Your task to perform on an android device: Clear all items from cart on bestbuy.com. Search for razer thresher on bestbuy.com, select the first entry, and add it to the cart. Image 0: 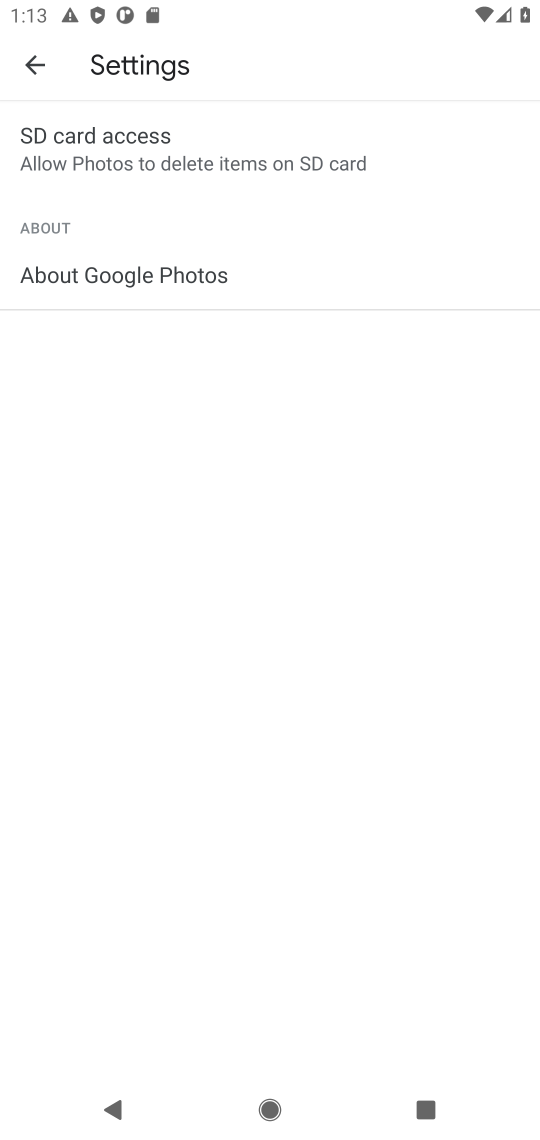
Step 0: press home button
Your task to perform on an android device: Clear all items from cart on bestbuy.com. Search for razer thresher on bestbuy.com, select the first entry, and add it to the cart. Image 1: 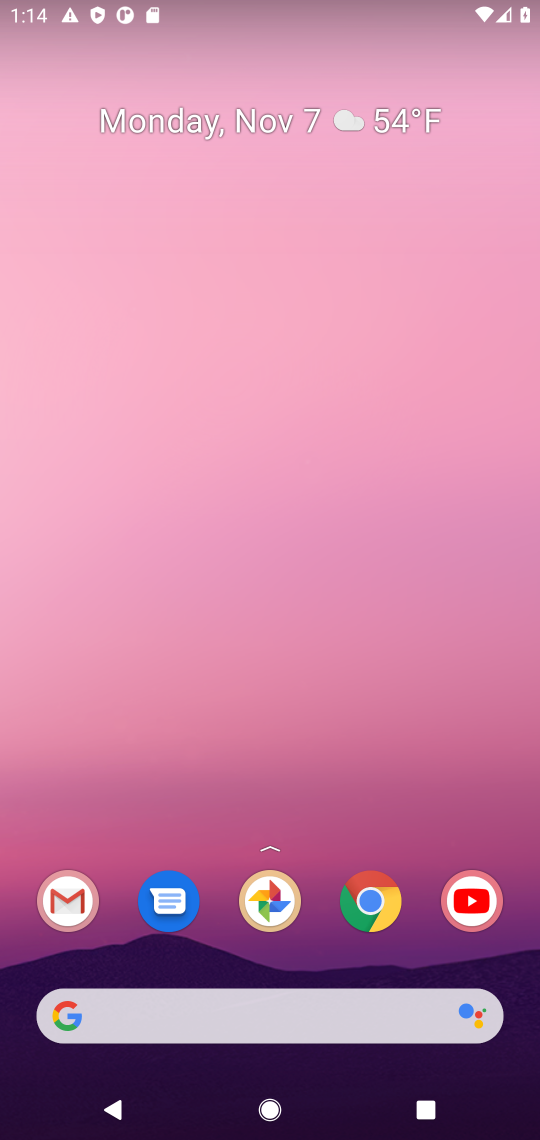
Step 1: click (371, 908)
Your task to perform on an android device: Clear all items from cart on bestbuy.com. Search for razer thresher on bestbuy.com, select the first entry, and add it to the cart. Image 2: 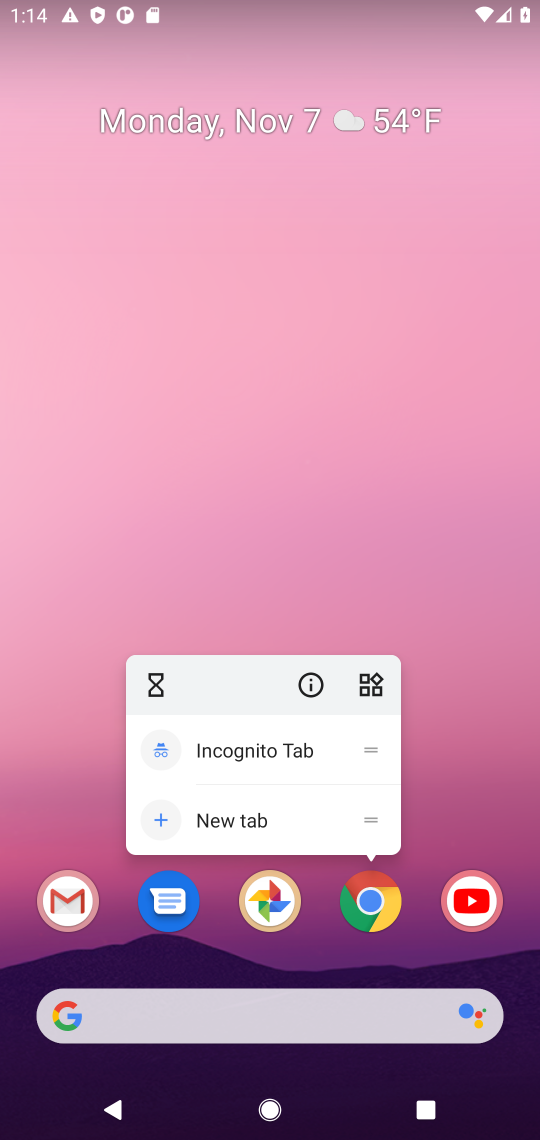
Step 2: click (371, 908)
Your task to perform on an android device: Clear all items from cart on bestbuy.com. Search for razer thresher on bestbuy.com, select the first entry, and add it to the cart. Image 3: 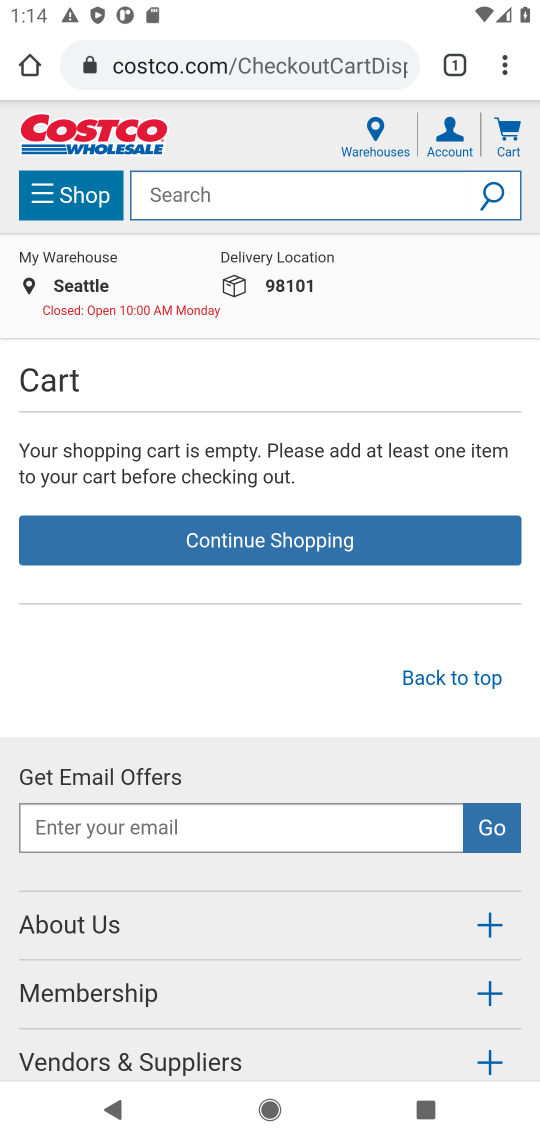
Step 3: click (225, 71)
Your task to perform on an android device: Clear all items from cart on bestbuy.com. Search for razer thresher on bestbuy.com, select the first entry, and add it to the cart. Image 4: 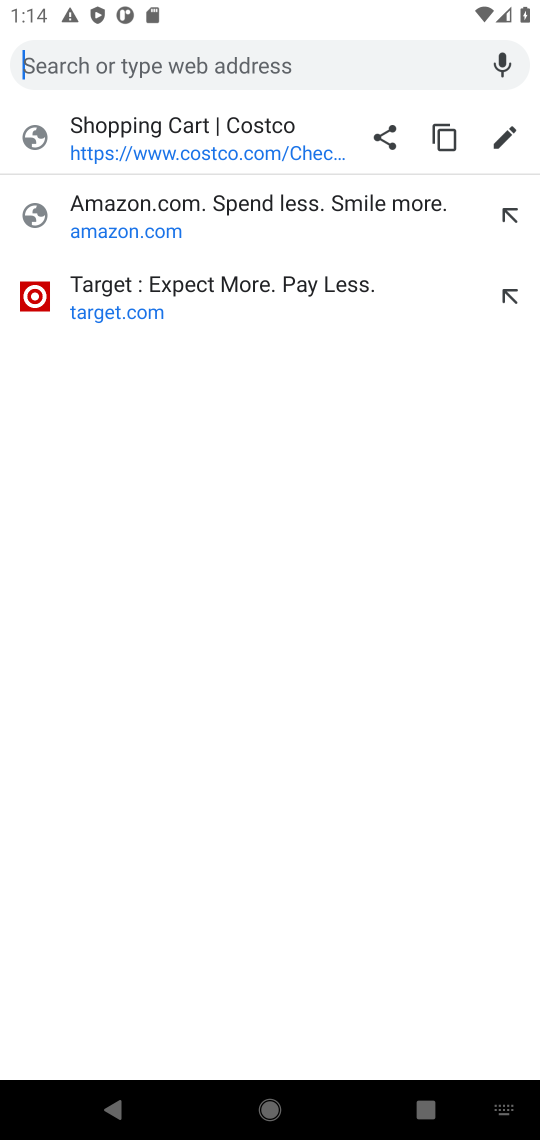
Step 4: type "bestbuy.com"
Your task to perform on an android device: Clear all items from cart on bestbuy.com. Search for razer thresher on bestbuy.com, select the first entry, and add it to the cart. Image 5: 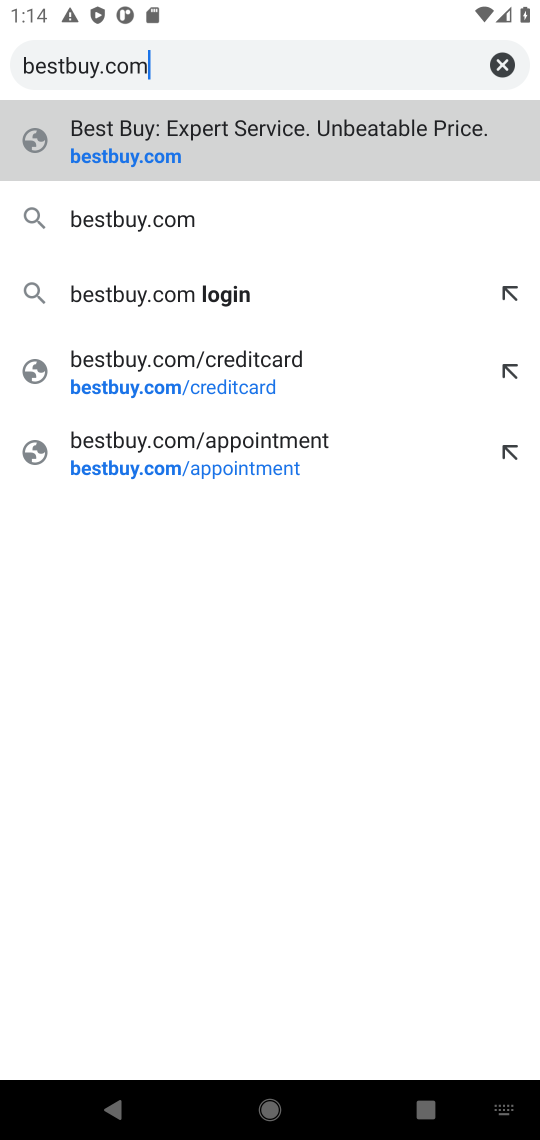
Step 5: click (133, 163)
Your task to perform on an android device: Clear all items from cart on bestbuy.com. Search for razer thresher on bestbuy.com, select the first entry, and add it to the cart. Image 6: 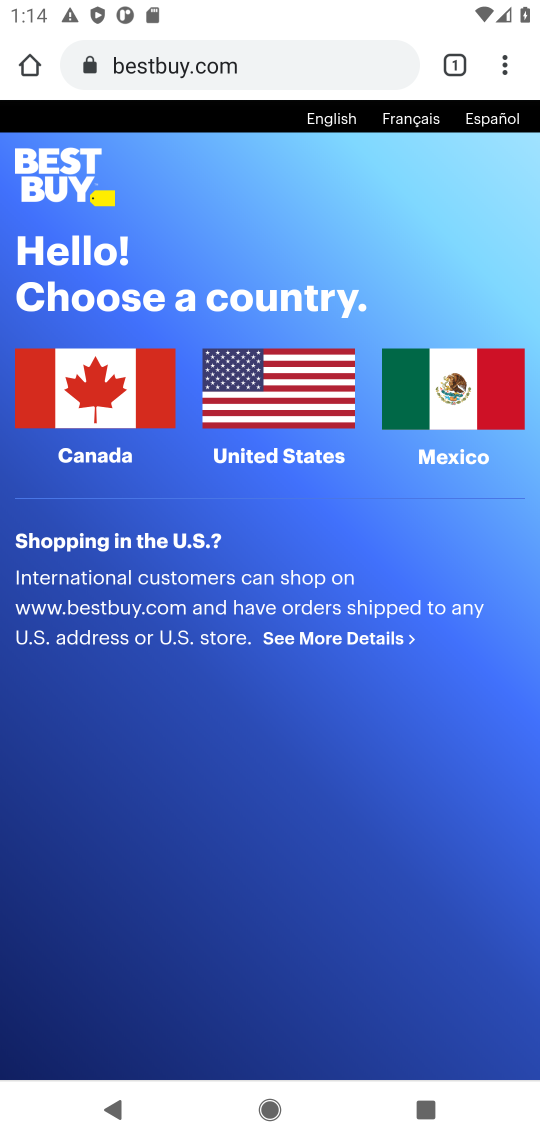
Step 6: click (281, 423)
Your task to perform on an android device: Clear all items from cart on bestbuy.com. Search for razer thresher on bestbuy.com, select the first entry, and add it to the cart. Image 7: 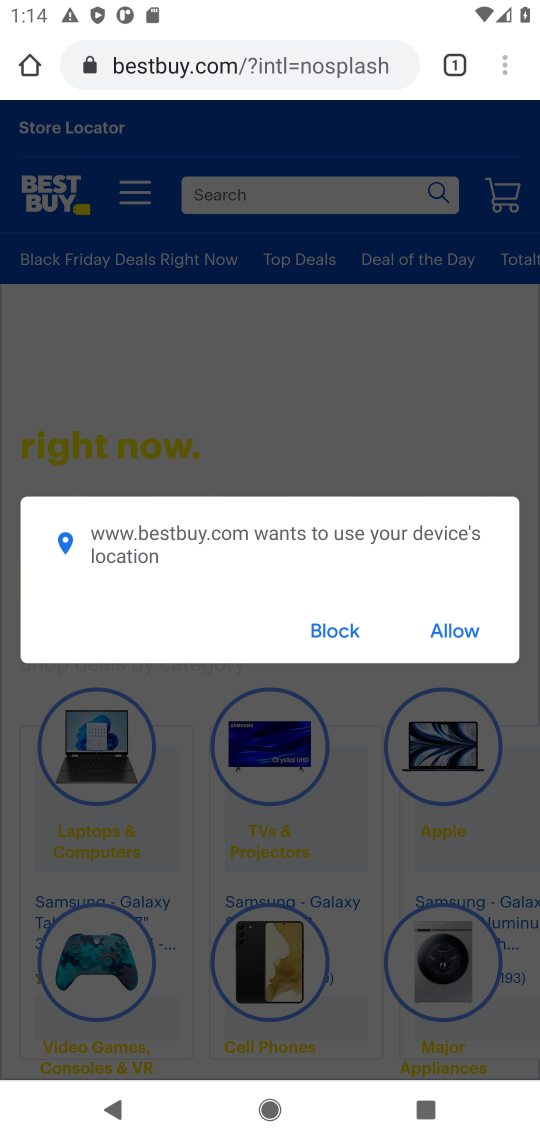
Step 7: click (316, 637)
Your task to perform on an android device: Clear all items from cart on bestbuy.com. Search for razer thresher on bestbuy.com, select the first entry, and add it to the cart. Image 8: 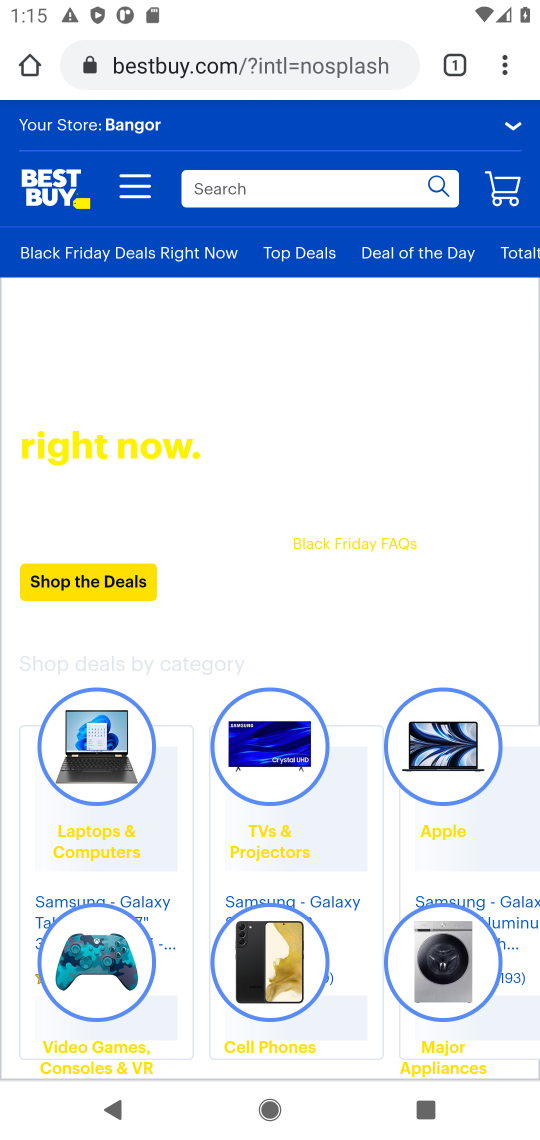
Step 8: click (504, 193)
Your task to perform on an android device: Clear all items from cart on bestbuy.com. Search for razer thresher on bestbuy.com, select the first entry, and add it to the cart. Image 9: 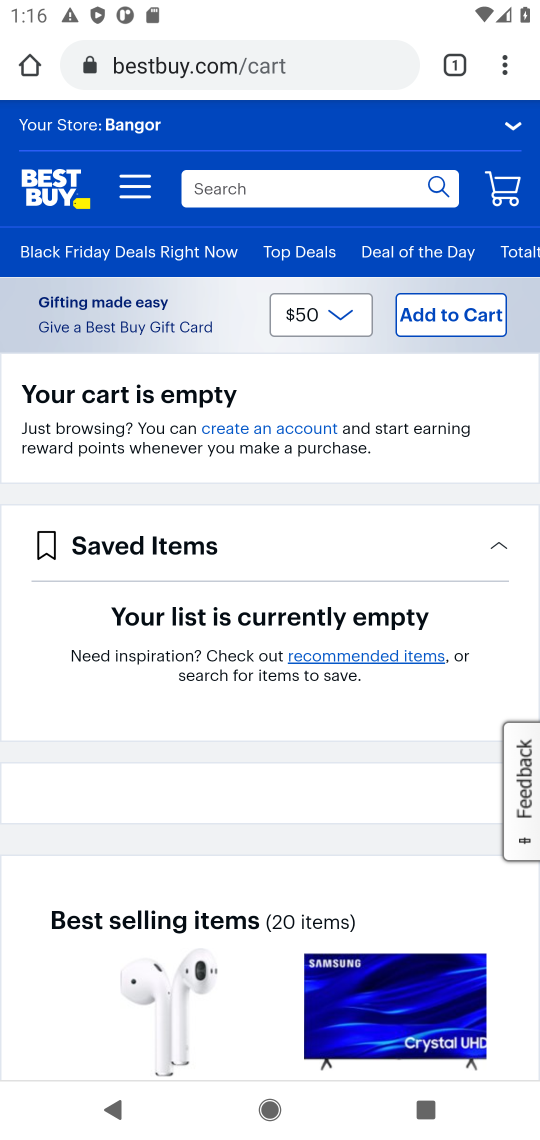
Step 9: drag from (262, 721) to (282, 534)
Your task to perform on an android device: Clear all items from cart on bestbuy.com. Search for razer thresher on bestbuy.com, select the first entry, and add it to the cart. Image 10: 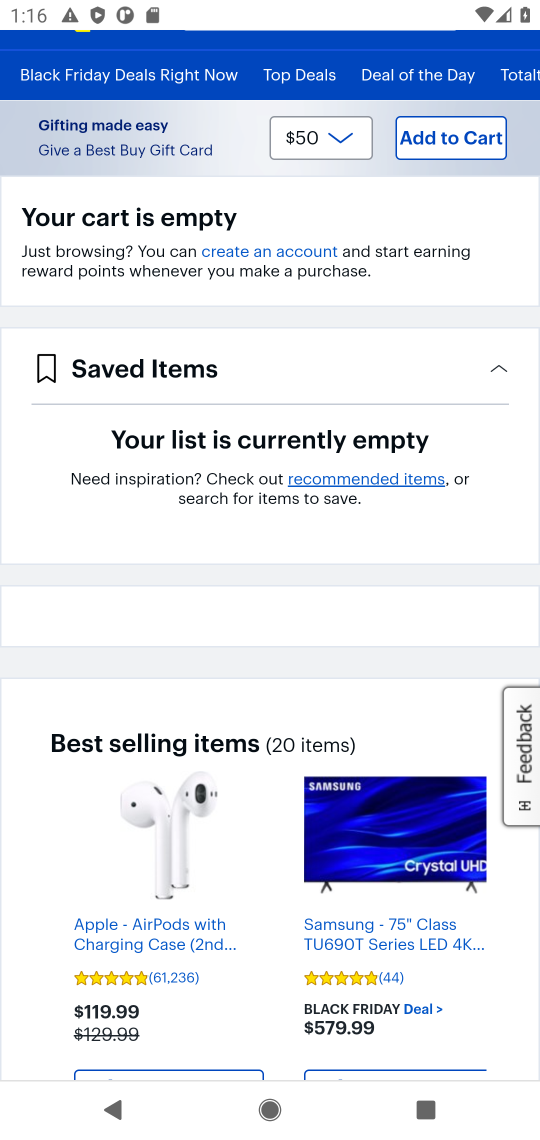
Step 10: drag from (214, 230) to (238, 651)
Your task to perform on an android device: Clear all items from cart on bestbuy.com. Search for razer thresher on bestbuy.com, select the first entry, and add it to the cart. Image 11: 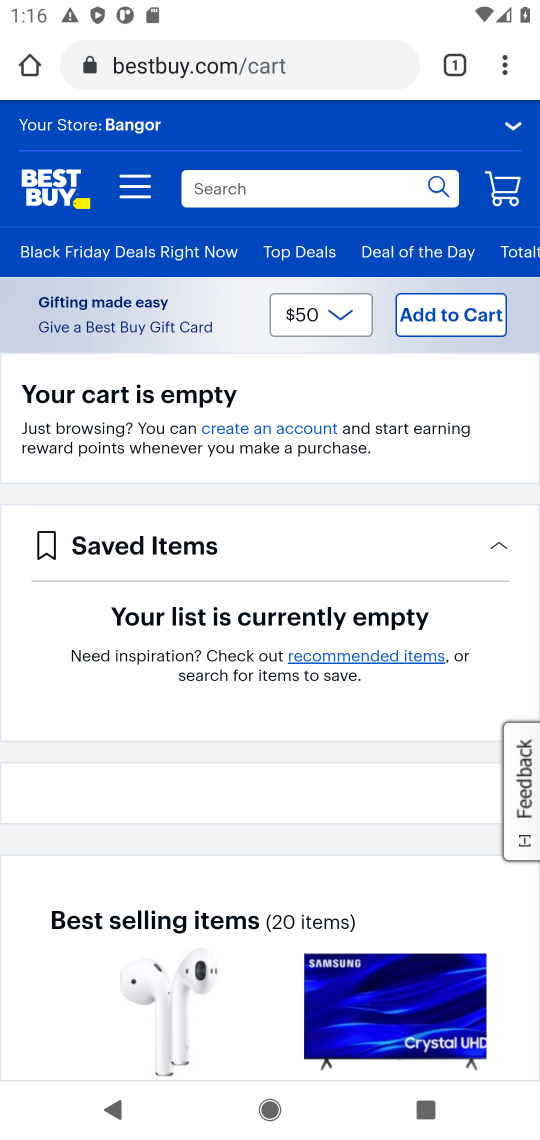
Step 11: click (229, 194)
Your task to perform on an android device: Clear all items from cart on bestbuy.com. Search for razer thresher on bestbuy.com, select the first entry, and add it to the cart. Image 12: 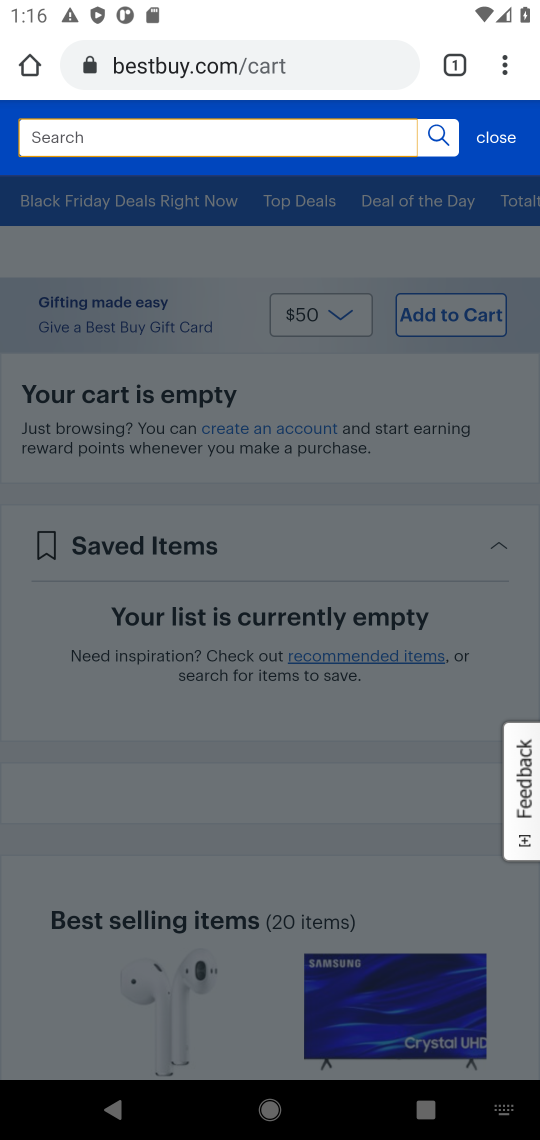
Step 12: type "razer thresher"
Your task to perform on an android device: Clear all items from cart on bestbuy.com. Search for razer thresher on bestbuy.com, select the first entry, and add it to the cart. Image 13: 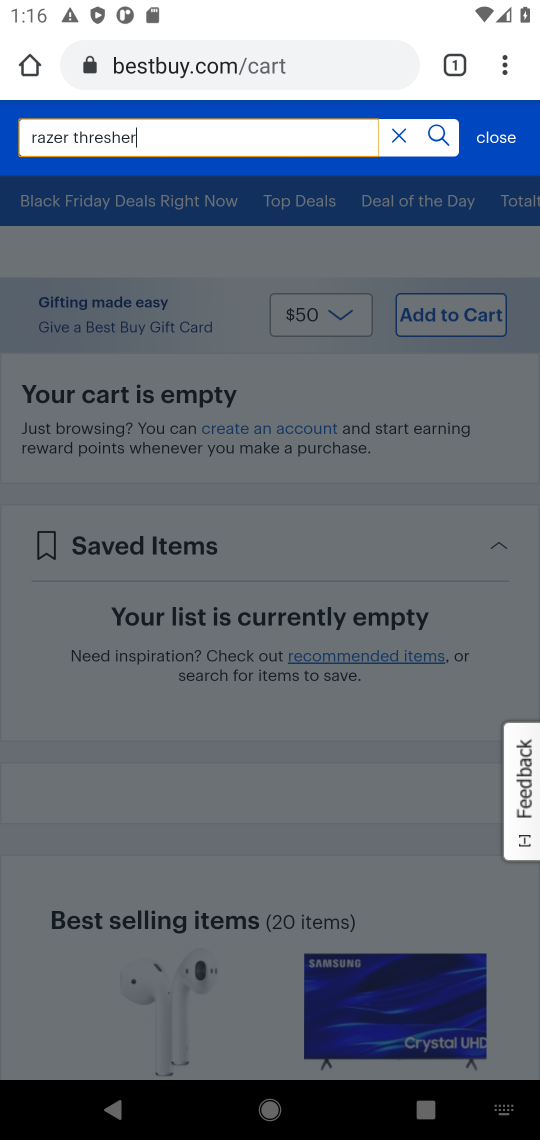
Step 13: click (436, 132)
Your task to perform on an android device: Clear all items from cart on bestbuy.com. Search for razer thresher on bestbuy.com, select the first entry, and add it to the cart. Image 14: 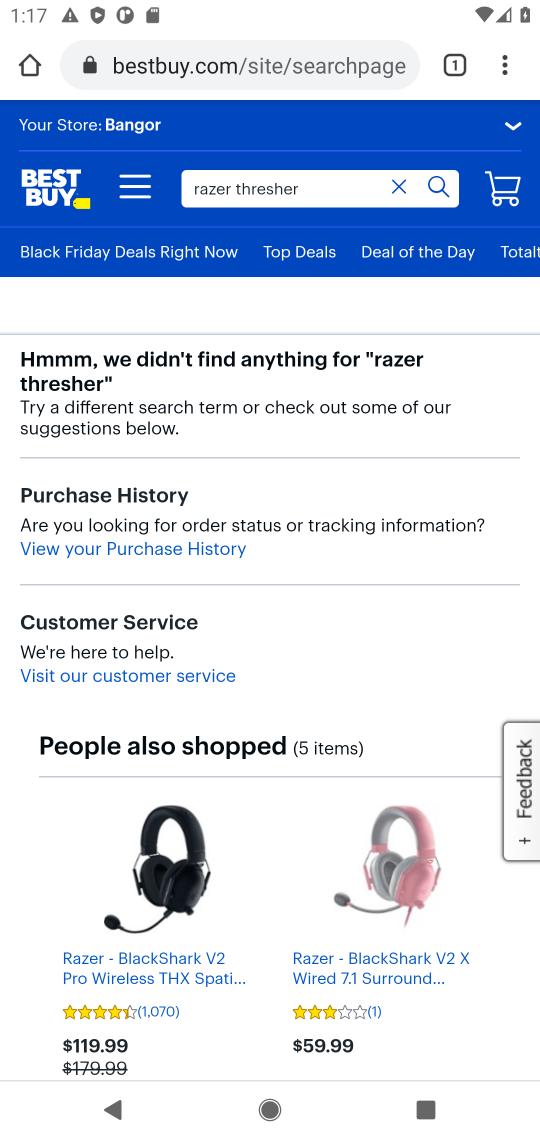
Step 14: task complete